Your task to perform on an android device: Set the phone to "Do not disturb". Image 0: 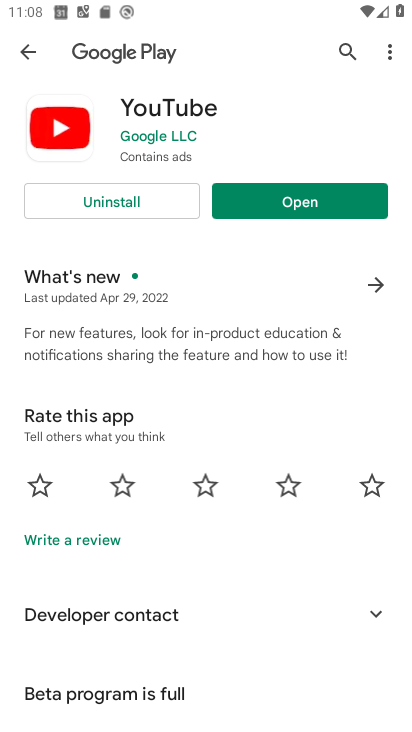
Step 0: press home button
Your task to perform on an android device: Set the phone to "Do not disturb". Image 1: 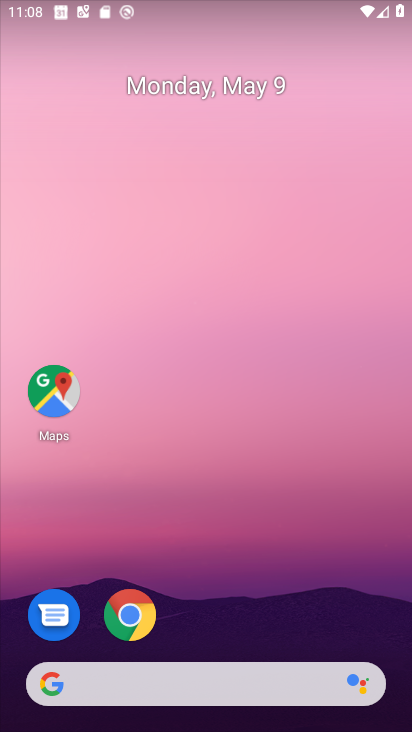
Step 1: drag from (213, 713) to (190, 175)
Your task to perform on an android device: Set the phone to "Do not disturb". Image 2: 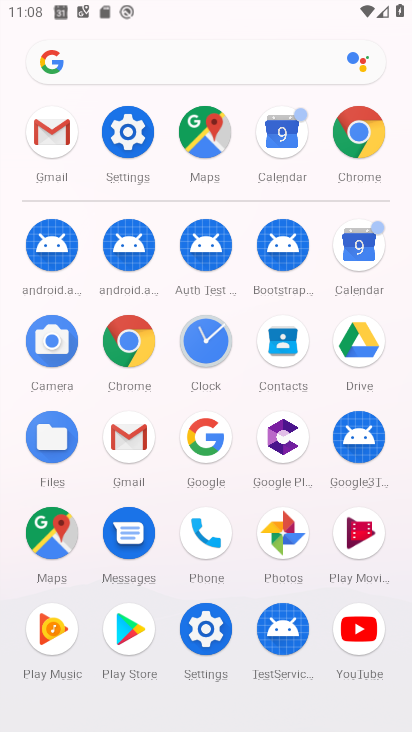
Step 2: click (214, 615)
Your task to perform on an android device: Set the phone to "Do not disturb". Image 3: 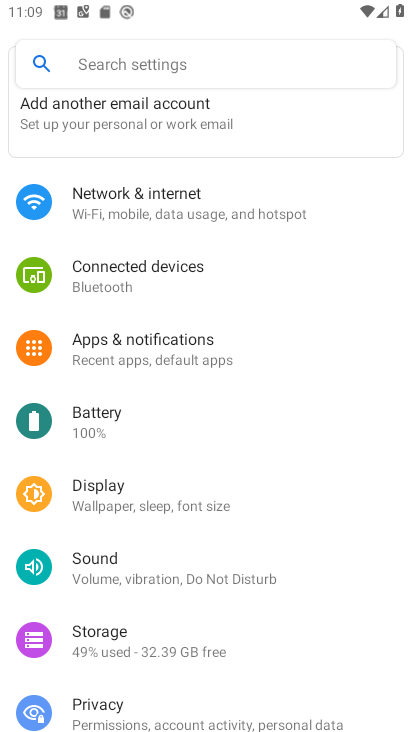
Step 3: click (108, 64)
Your task to perform on an android device: Set the phone to "Do not disturb". Image 4: 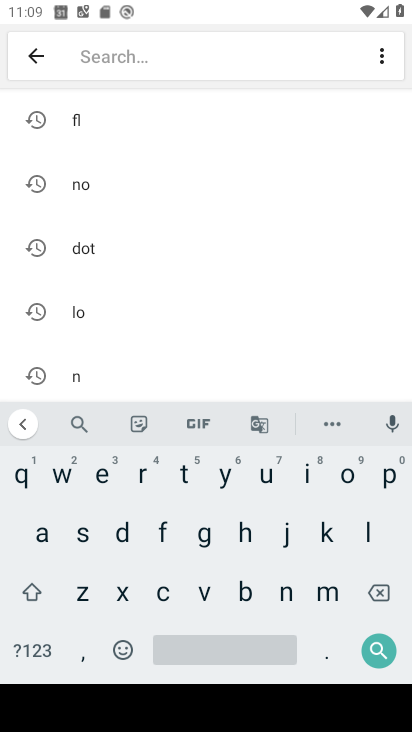
Step 4: click (123, 534)
Your task to perform on an android device: Set the phone to "Do not disturb". Image 5: 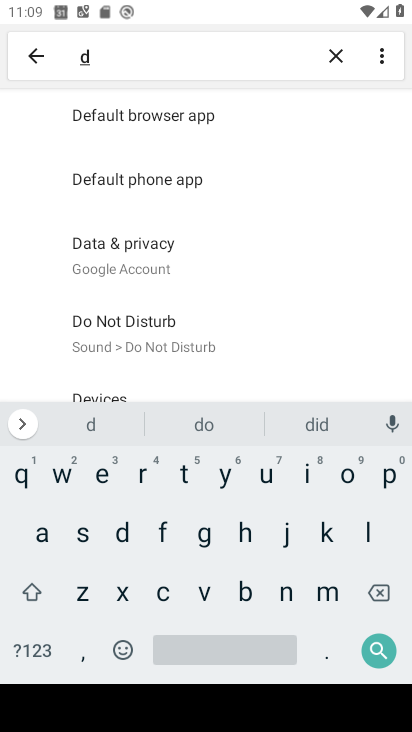
Step 5: click (292, 594)
Your task to perform on an android device: Set the phone to "Do not disturb". Image 6: 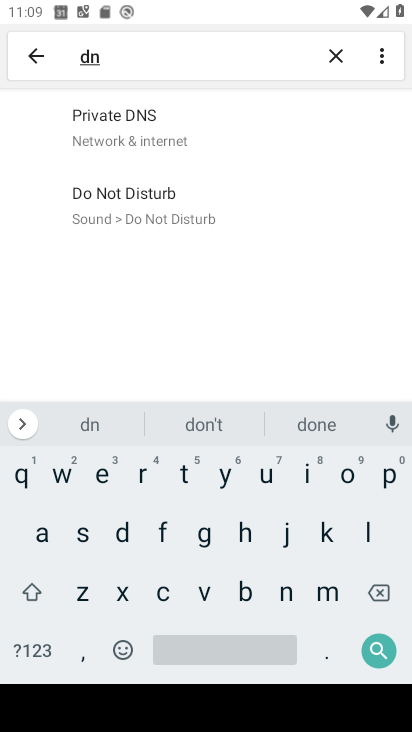
Step 6: click (167, 195)
Your task to perform on an android device: Set the phone to "Do not disturb". Image 7: 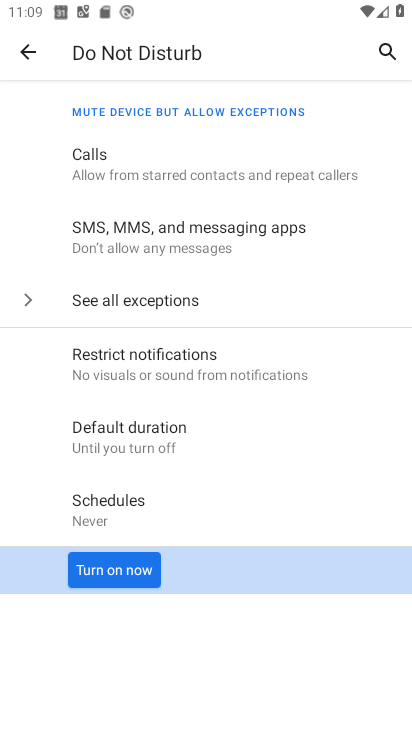
Step 7: click (145, 567)
Your task to perform on an android device: Set the phone to "Do not disturb". Image 8: 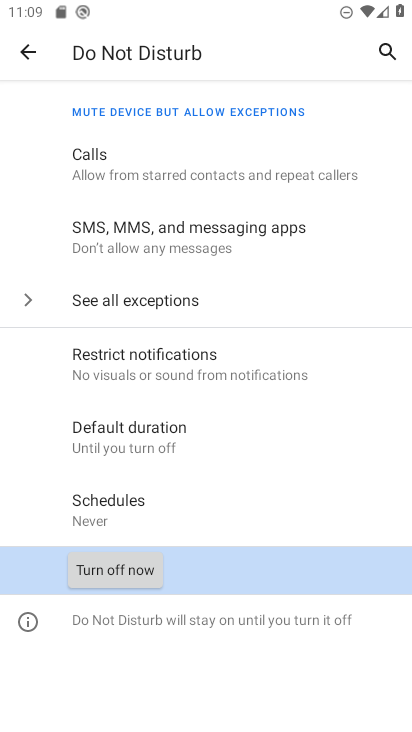
Step 8: task complete